Your task to perform on an android device: add a label to a message in the gmail app Image 0: 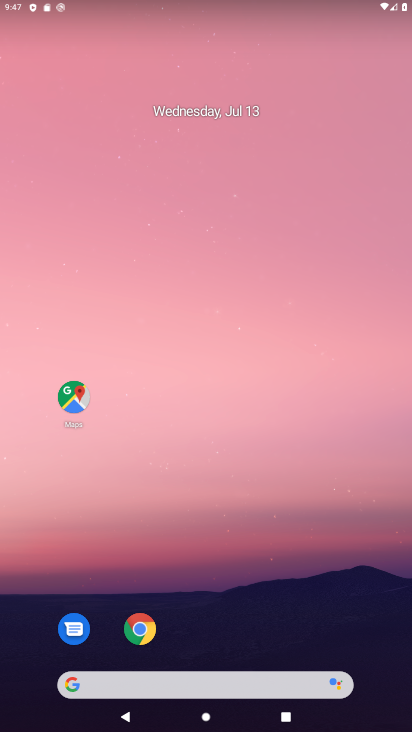
Step 0: press home button
Your task to perform on an android device: add a label to a message in the gmail app Image 1: 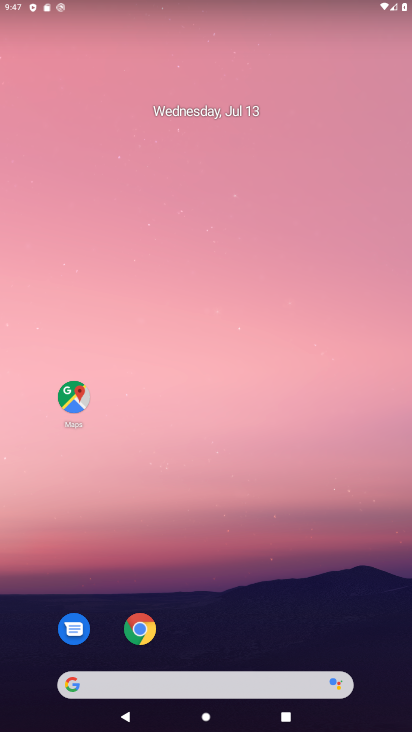
Step 1: drag from (232, 656) to (239, 3)
Your task to perform on an android device: add a label to a message in the gmail app Image 2: 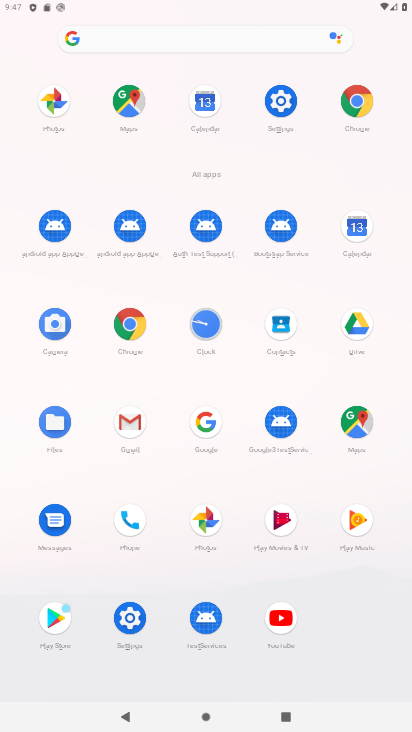
Step 2: click (131, 413)
Your task to perform on an android device: add a label to a message in the gmail app Image 3: 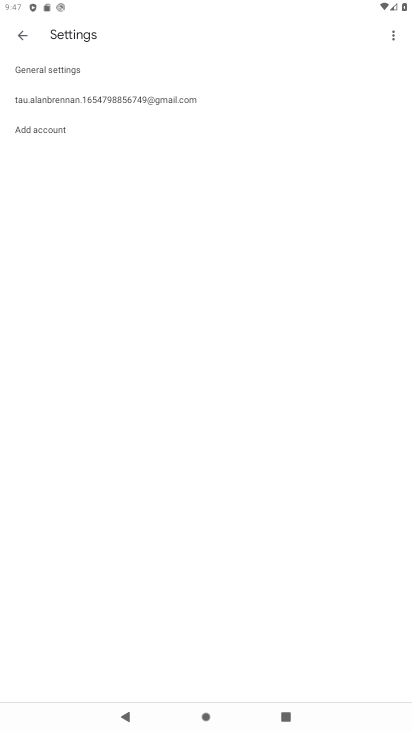
Step 3: click (22, 35)
Your task to perform on an android device: add a label to a message in the gmail app Image 4: 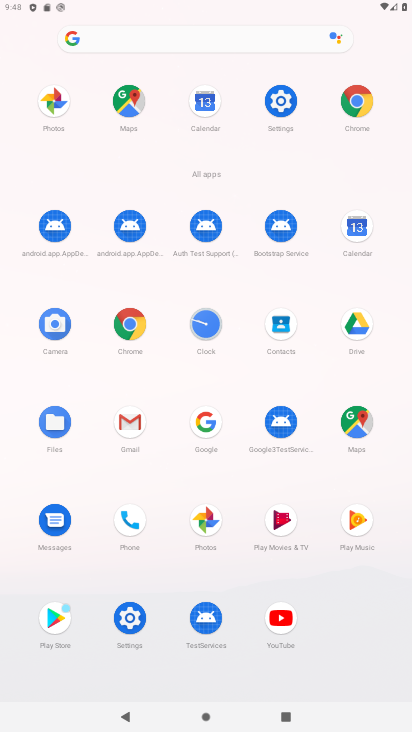
Step 4: click (129, 417)
Your task to perform on an android device: add a label to a message in the gmail app Image 5: 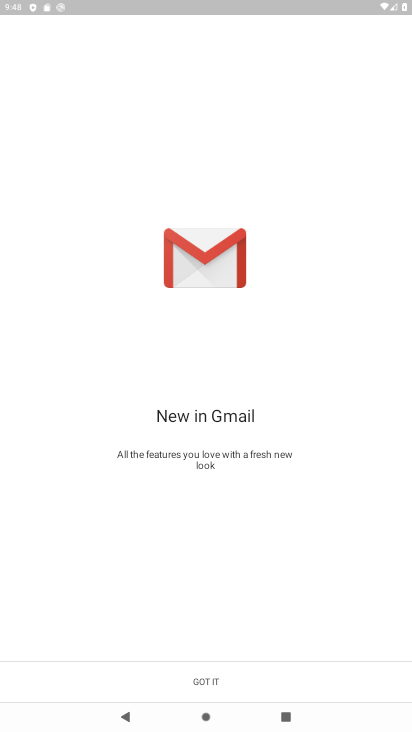
Step 5: task complete